Your task to perform on an android device: Open network settings Image 0: 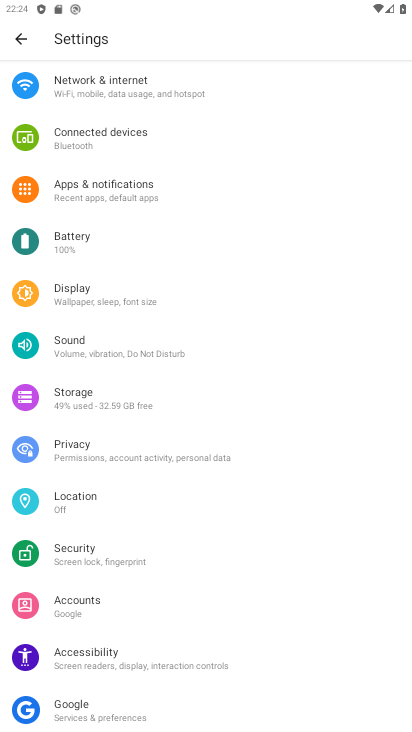
Step 0: click (140, 92)
Your task to perform on an android device: Open network settings Image 1: 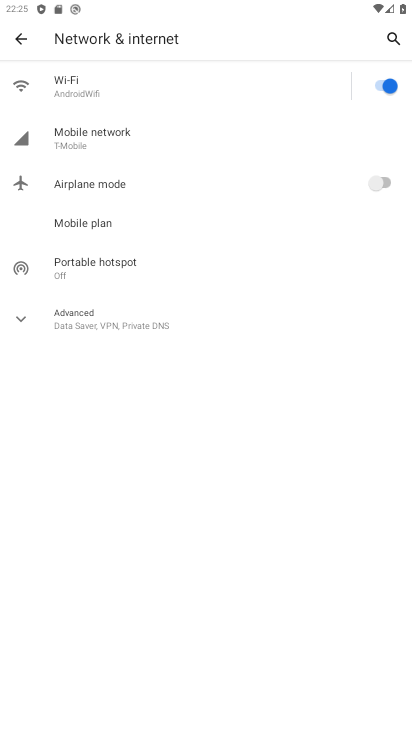
Step 1: click (165, 321)
Your task to perform on an android device: Open network settings Image 2: 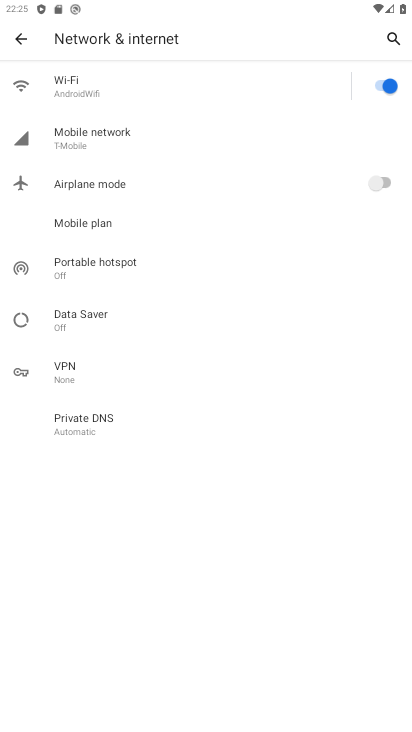
Step 2: task complete